Your task to perform on an android device: Open Yahoo.com Image 0: 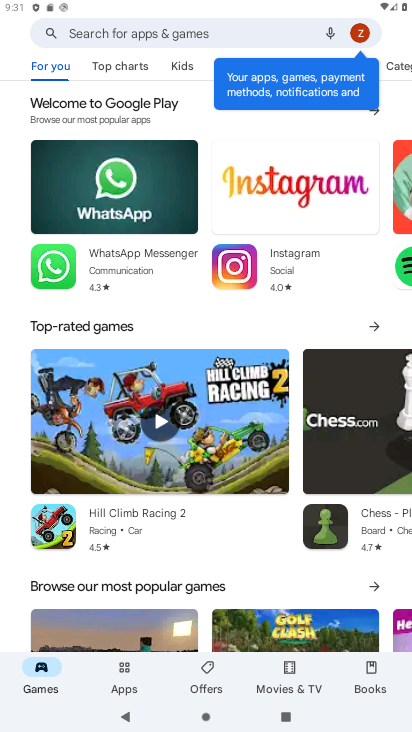
Step 0: press home button
Your task to perform on an android device: Open Yahoo.com Image 1: 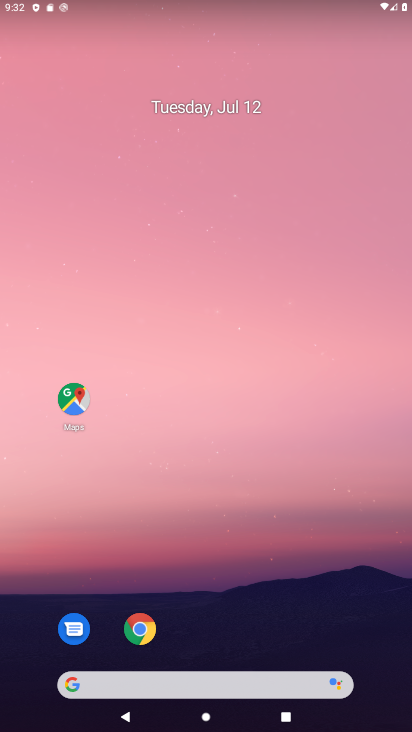
Step 1: drag from (259, 265) to (229, 41)
Your task to perform on an android device: Open Yahoo.com Image 2: 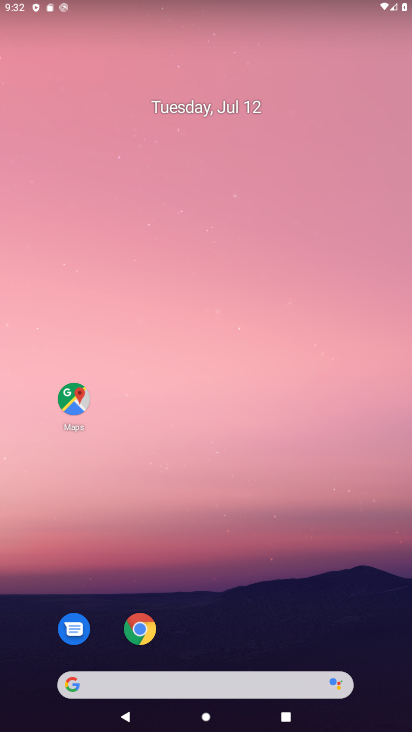
Step 2: drag from (334, 549) to (216, 30)
Your task to perform on an android device: Open Yahoo.com Image 3: 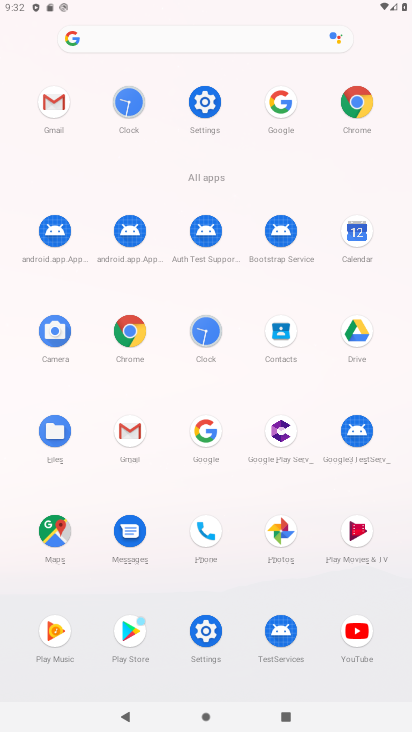
Step 3: click (123, 329)
Your task to perform on an android device: Open Yahoo.com Image 4: 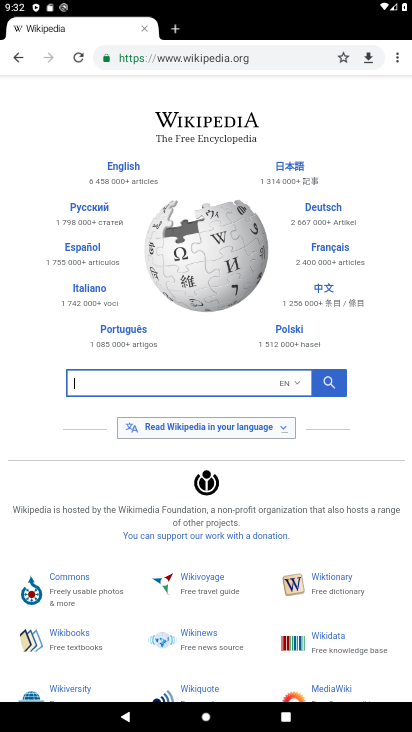
Step 4: click (231, 58)
Your task to perform on an android device: Open Yahoo.com Image 5: 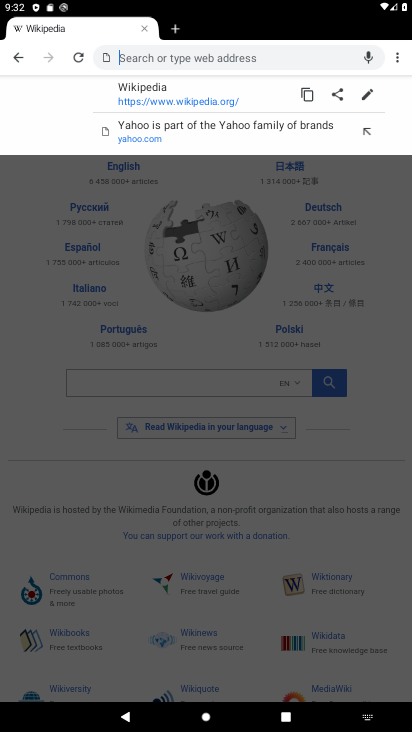
Step 5: type "yahoo.com"
Your task to perform on an android device: Open Yahoo.com Image 6: 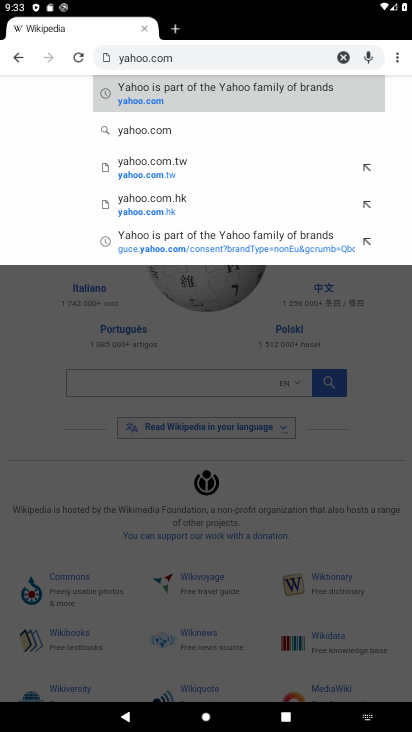
Step 6: click (198, 91)
Your task to perform on an android device: Open Yahoo.com Image 7: 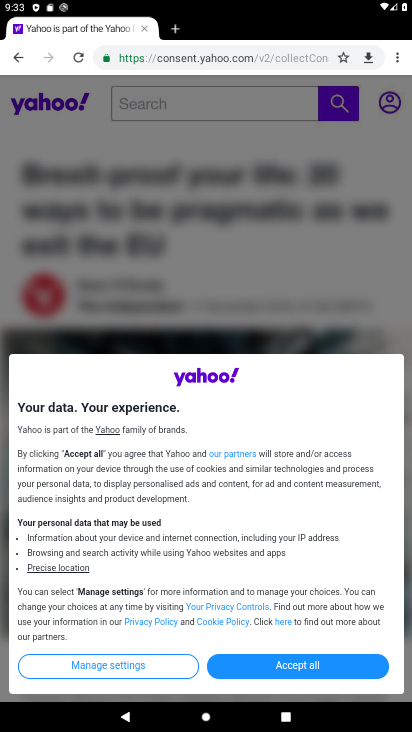
Step 7: task complete